Your task to perform on an android device: Open Google Maps Image 0: 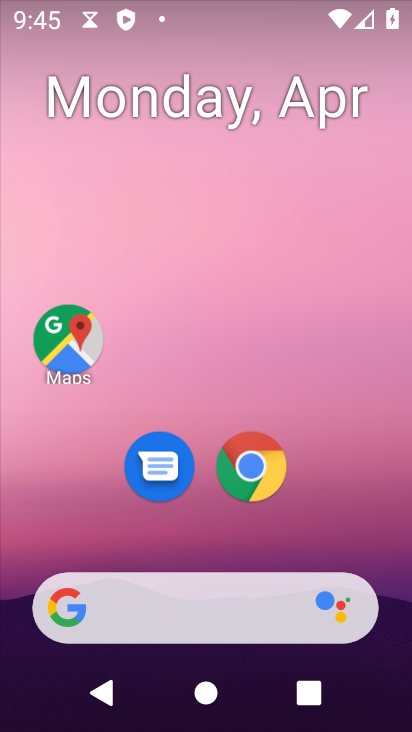
Step 0: click (74, 343)
Your task to perform on an android device: Open Google Maps Image 1: 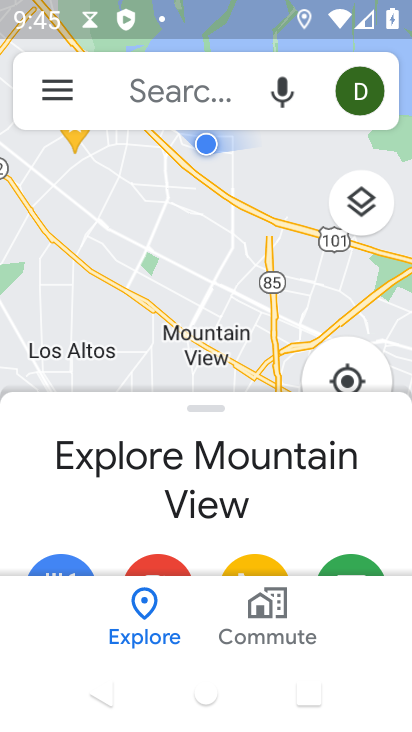
Step 1: task complete